Your task to perform on an android device: check storage Image 0: 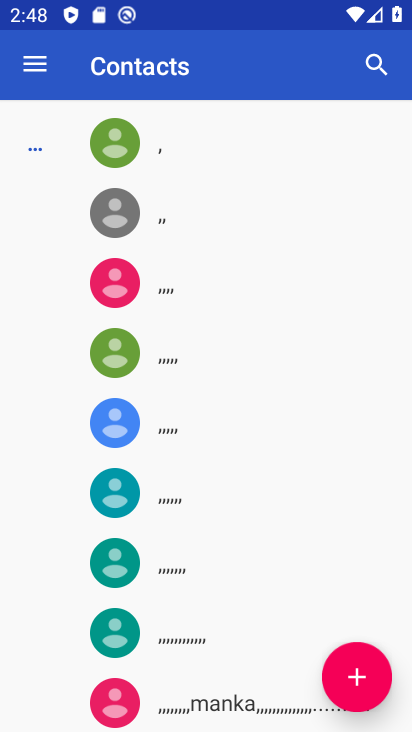
Step 0: press home button
Your task to perform on an android device: check storage Image 1: 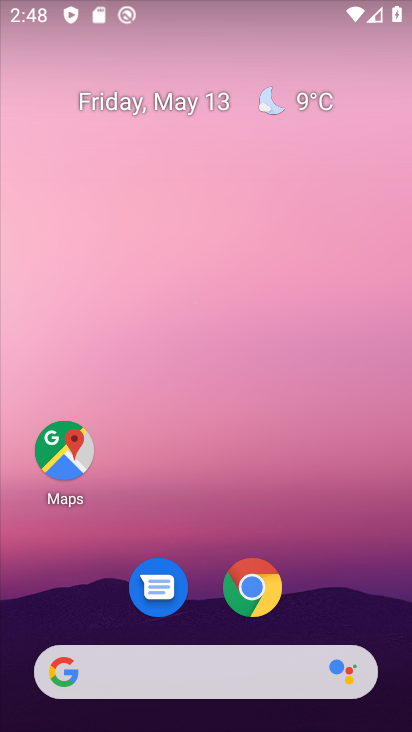
Step 1: drag from (312, 624) to (337, 244)
Your task to perform on an android device: check storage Image 2: 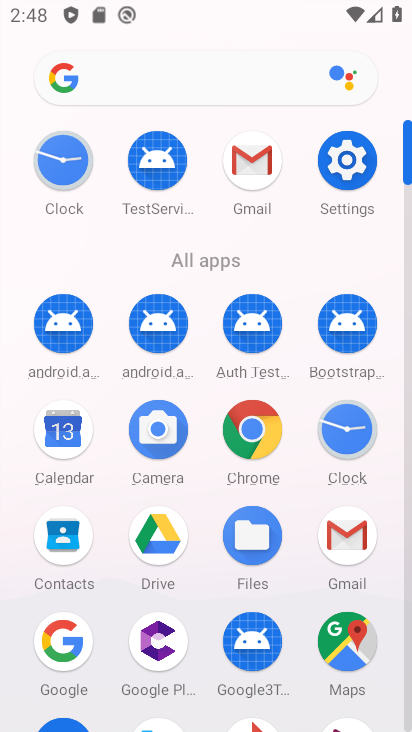
Step 2: click (368, 159)
Your task to perform on an android device: check storage Image 3: 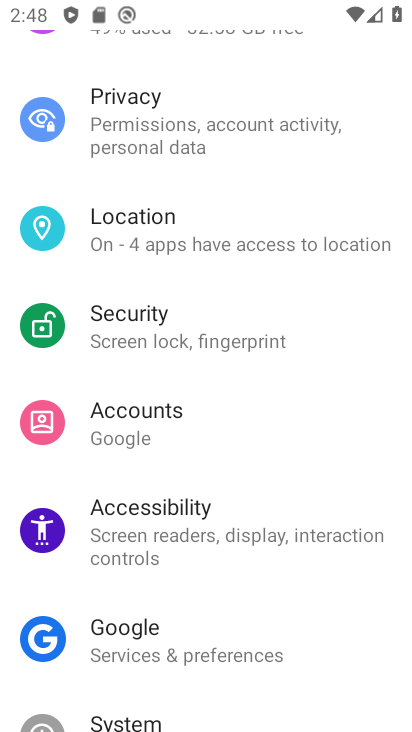
Step 3: drag from (227, 184) to (227, 630)
Your task to perform on an android device: check storage Image 4: 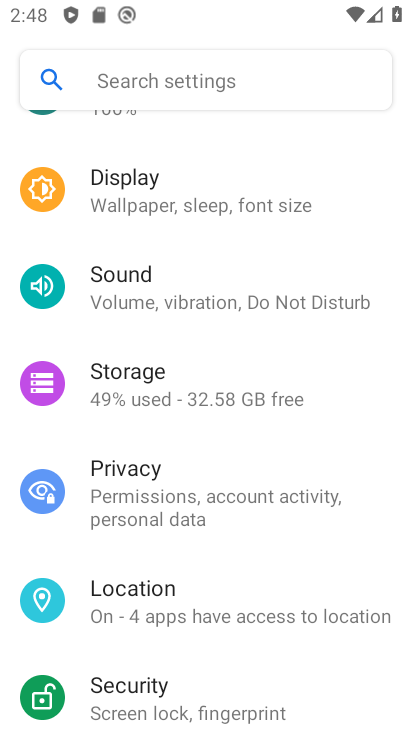
Step 4: drag from (203, 233) to (226, 620)
Your task to perform on an android device: check storage Image 5: 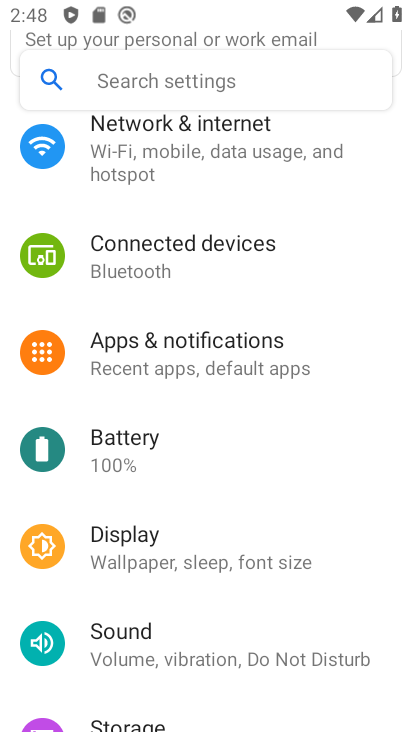
Step 5: click (138, 717)
Your task to perform on an android device: check storage Image 6: 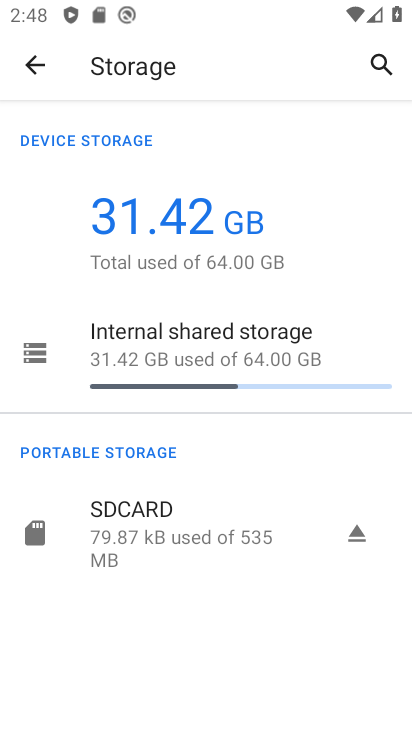
Step 6: task complete